Your task to perform on an android device: turn on wifi Image 0: 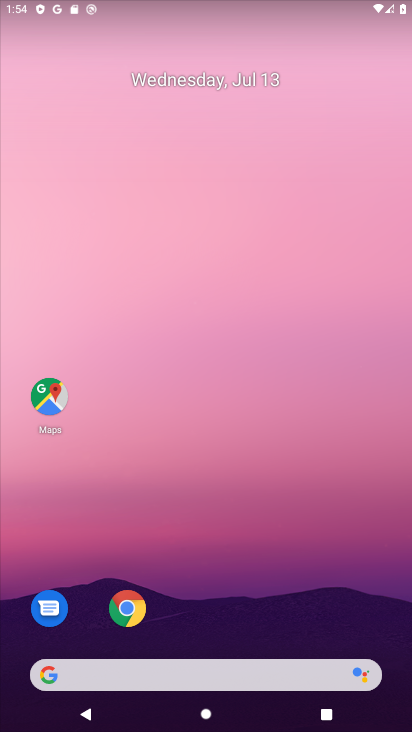
Step 0: drag from (202, 11) to (180, 388)
Your task to perform on an android device: turn on wifi Image 1: 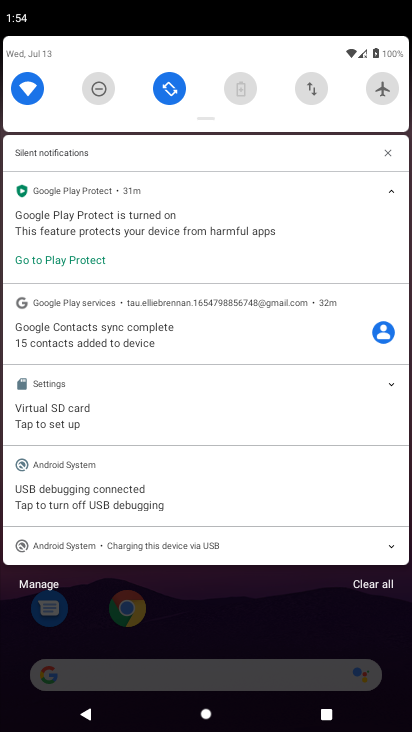
Step 1: task complete